Your task to perform on an android device: Open settings Image 0: 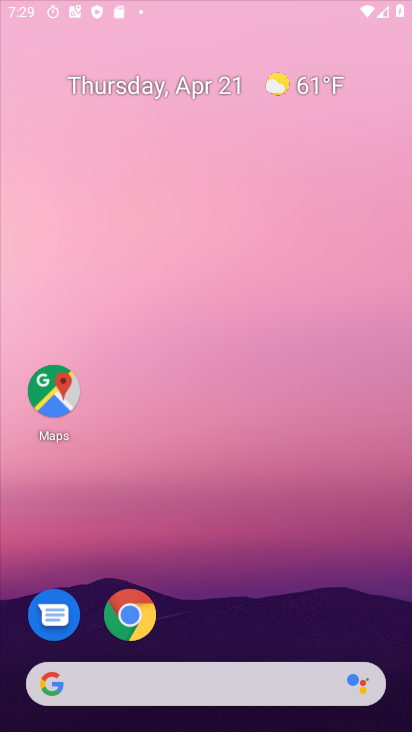
Step 0: click (232, 251)
Your task to perform on an android device: Open settings Image 1: 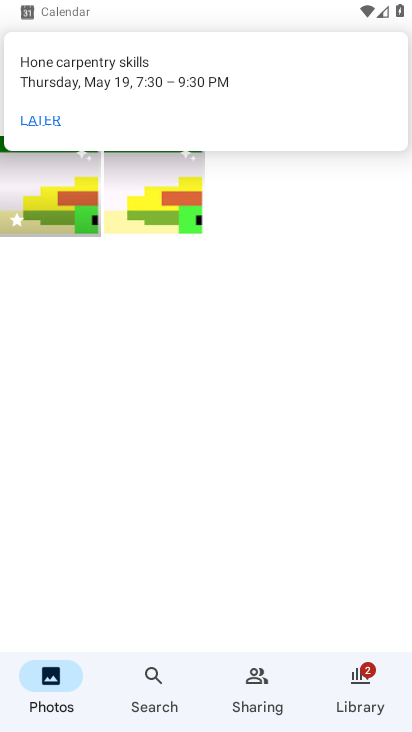
Step 1: press home button
Your task to perform on an android device: Open settings Image 2: 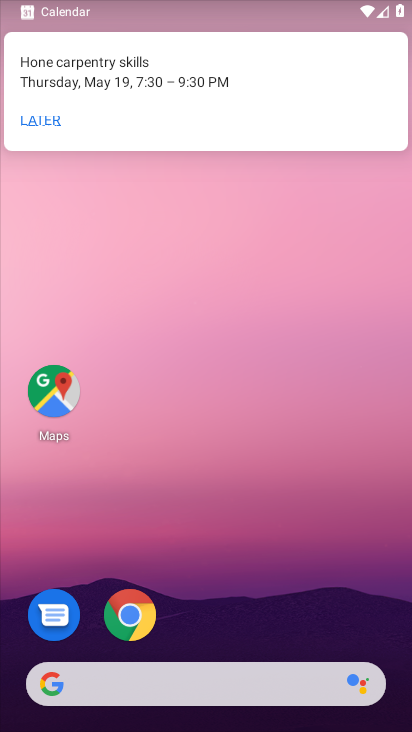
Step 2: drag from (112, 86) to (399, 113)
Your task to perform on an android device: Open settings Image 3: 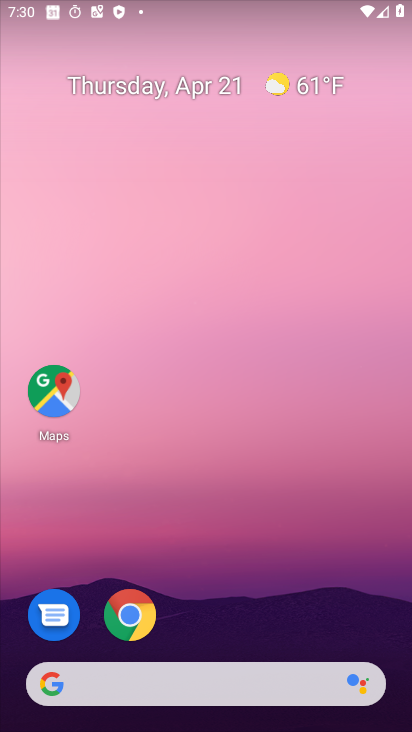
Step 3: drag from (211, 622) to (319, 53)
Your task to perform on an android device: Open settings Image 4: 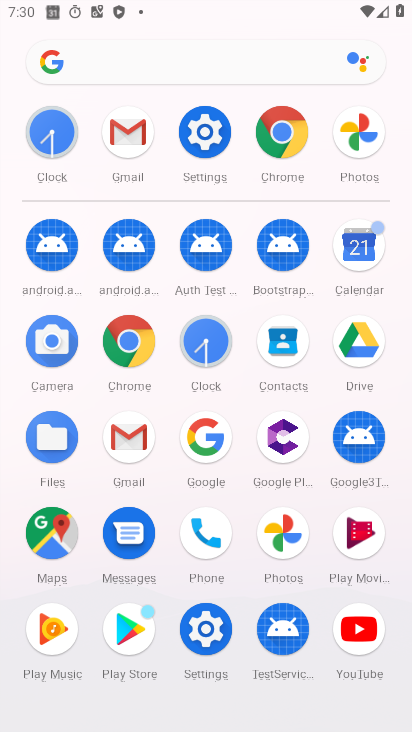
Step 4: click (205, 633)
Your task to perform on an android device: Open settings Image 5: 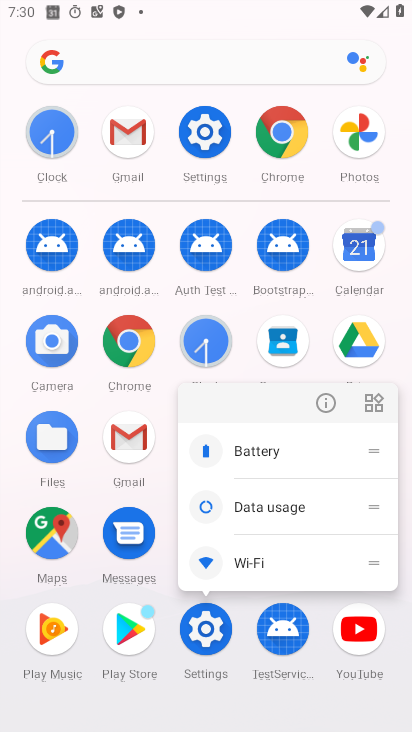
Step 5: click (324, 399)
Your task to perform on an android device: Open settings Image 6: 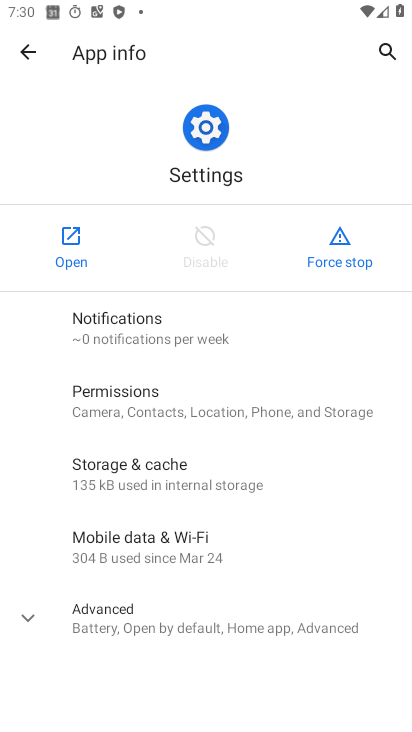
Step 6: click (57, 225)
Your task to perform on an android device: Open settings Image 7: 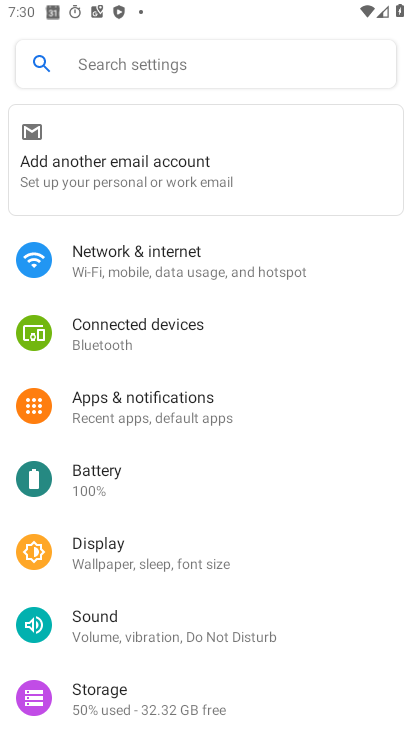
Step 7: task complete